Your task to perform on an android device: turn vacation reply on in the gmail app Image 0: 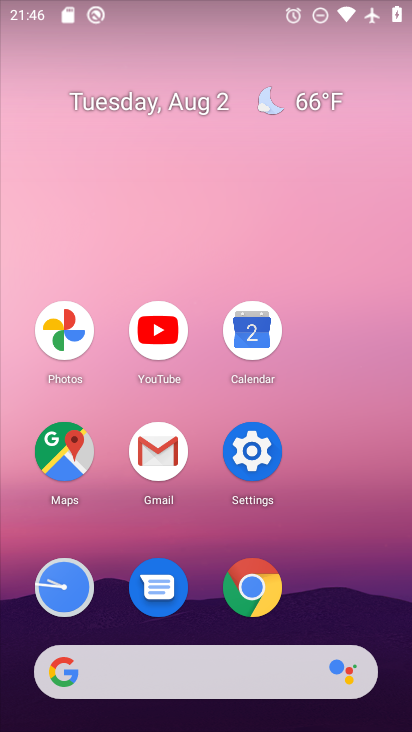
Step 0: click (157, 452)
Your task to perform on an android device: turn vacation reply on in the gmail app Image 1: 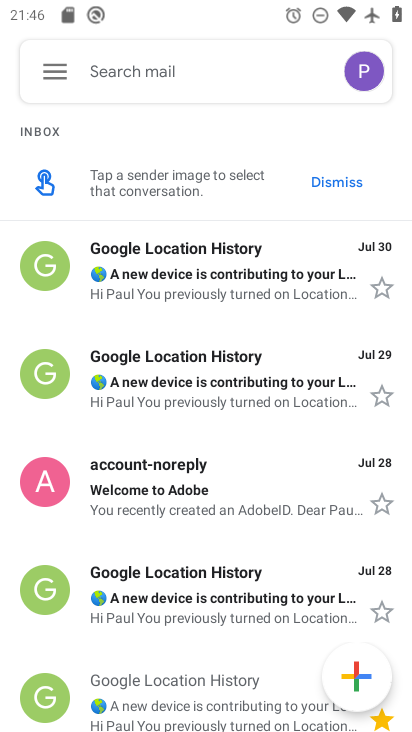
Step 1: click (63, 76)
Your task to perform on an android device: turn vacation reply on in the gmail app Image 2: 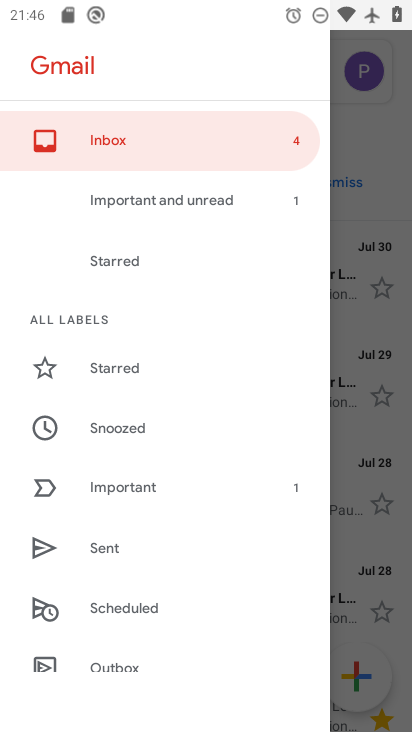
Step 2: drag from (189, 634) to (184, 167)
Your task to perform on an android device: turn vacation reply on in the gmail app Image 3: 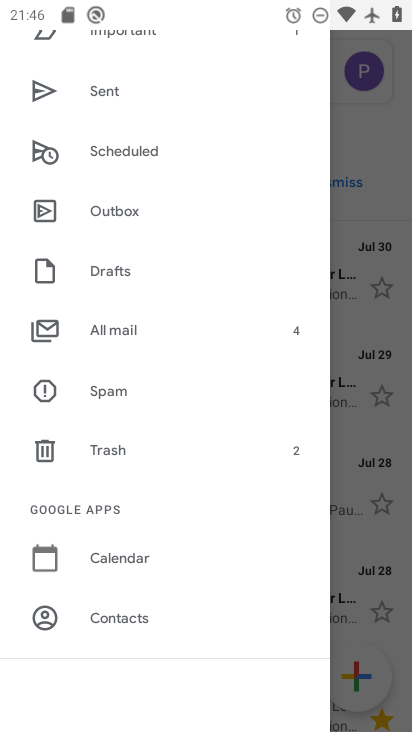
Step 3: drag from (188, 589) to (185, 211)
Your task to perform on an android device: turn vacation reply on in the gmail app Image 4: 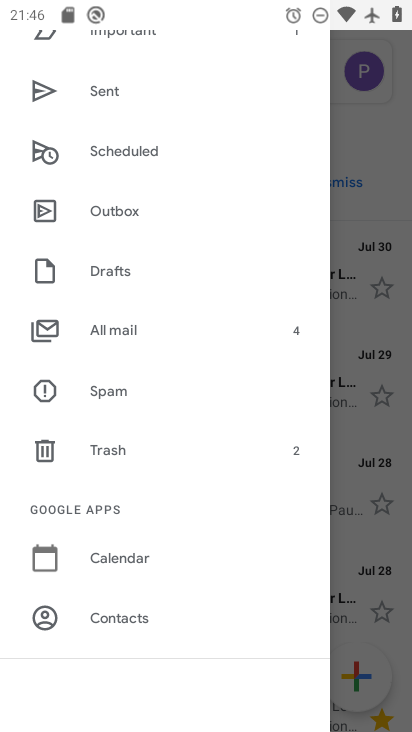
Step 4: drag from (166, 594) to (170, 19)
Your task to perform on an android device: turn vacation reply on in the gmail app Image 5: 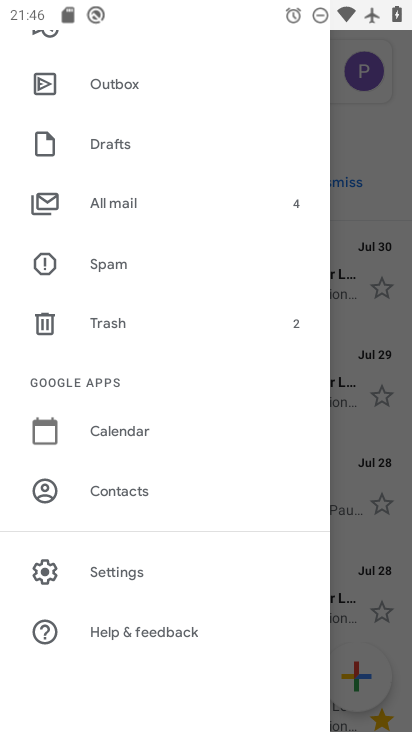
Step 5: click (109, 568)
Your task to perform on an android device: turn vacation reply on in the gmail app Image 6: 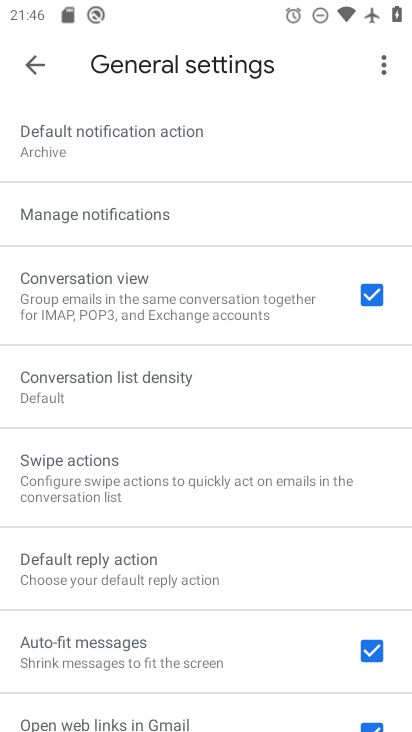
Step 6: click (33, 69)
Your task to perform on an android device: turn vacation reply on in the gmail app Image 7: 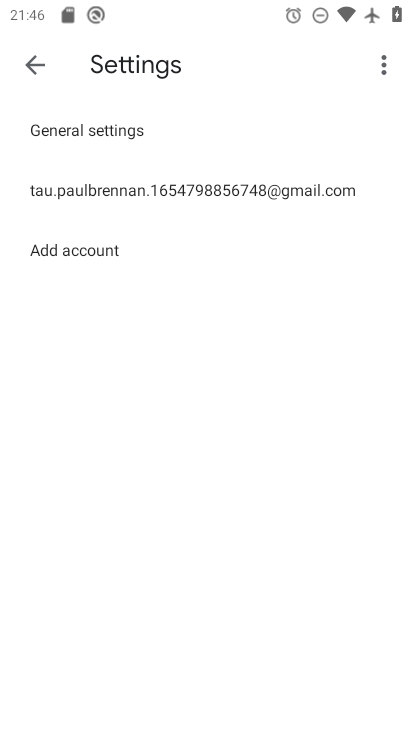
Step 7: click (138, 182)
Your task to perform on an android device: turn vacation reply on in the gmail app Image 8: 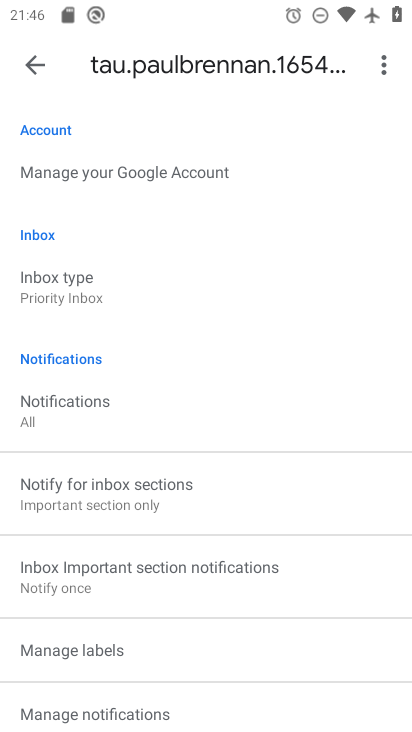
Step 8: drag from (181, 618) to (168, 315)
Your task to perform on an android device: turn vacation reply on in the gmail app Image 9: 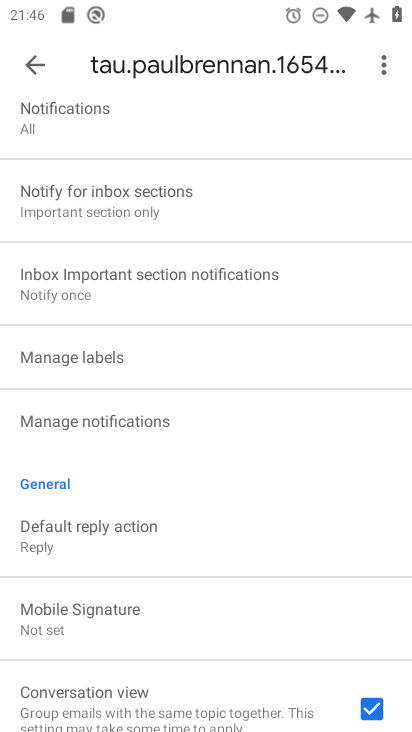
Step 9: drag from (179, 596) to (176, 189)
Your task to perform on an android device: turn vacation reply on in the gmail app Image 10: 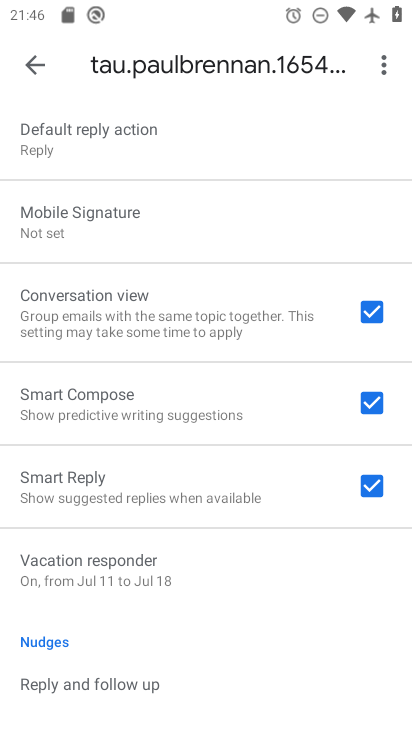
Step 10: drag from (246, 425) to (214, 117)
Your task to perform on an android device: turn vacation reply on in the gmail app Image 11: 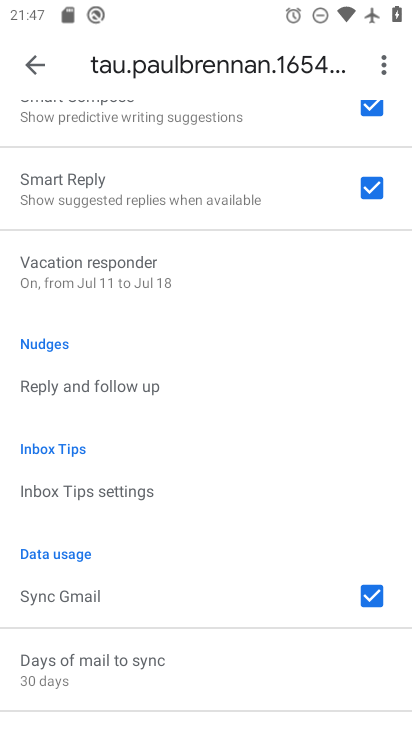
Step 11: click (62, 255)
Your task to perform on an android device: turn vacation reply on in the gmail app Image 12: 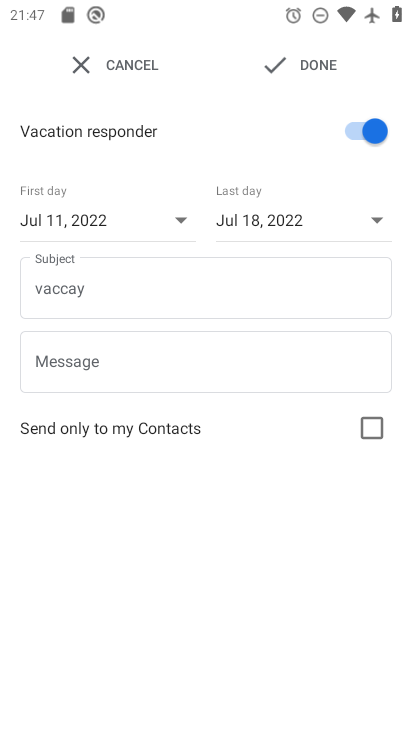
Step 12: task complete